Your task to perform on an android device: show emergency info Image 0: 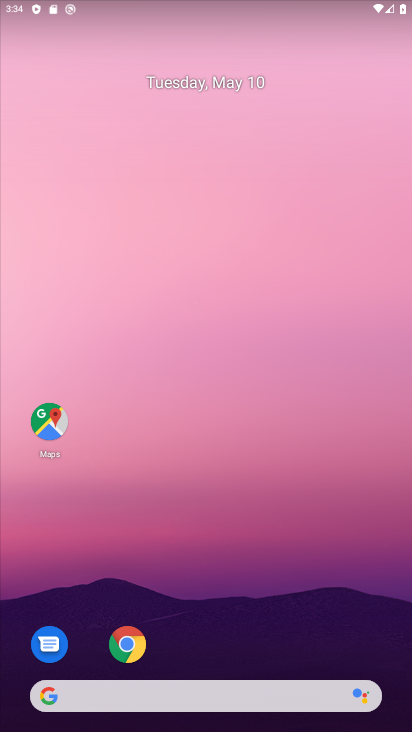
Step 0: drag from (205, 653) to (189, 236)
Your task to perform on an android device: show emergency info Image 1: 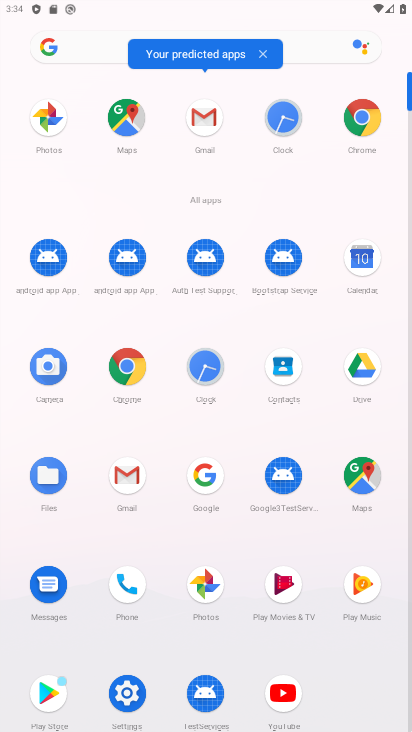
Step 1: click (124, 693)
Your task to perform on an android device: show emergency info Image 2: 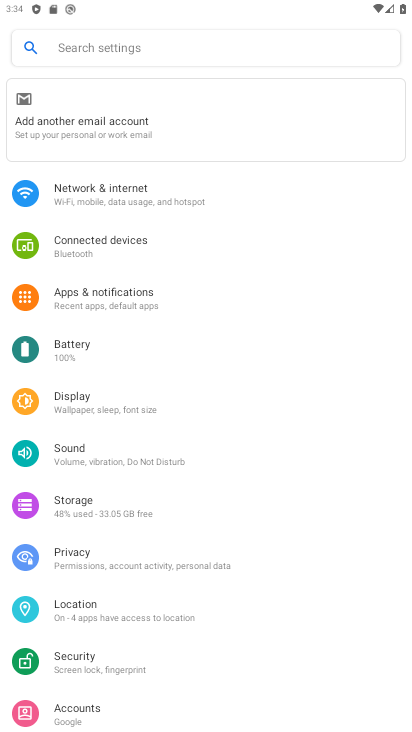
Step 2: drag from (153, 656) to (171, 350)
Your task to perform on an android device: show emergency info Image 3: 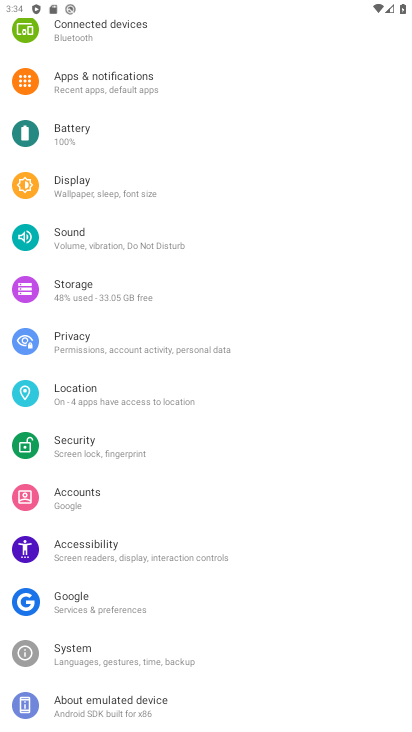
Step 3: click (151, 692)
Your task to perform on an android device: show emergency info Image 4: 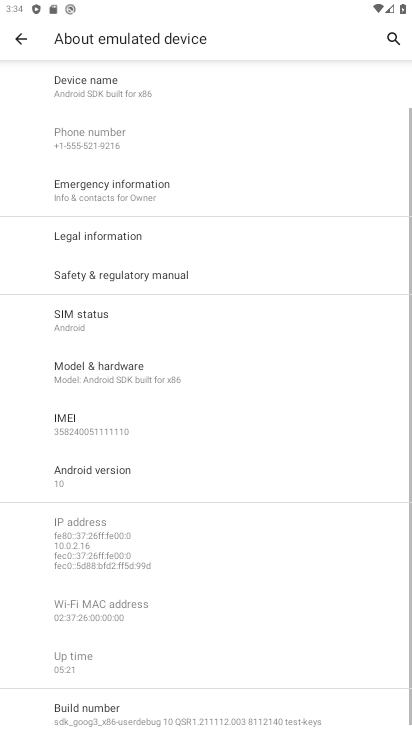
Step 4: click (131, 188)
Your task to perform on an android device: show emergency info Image 5: 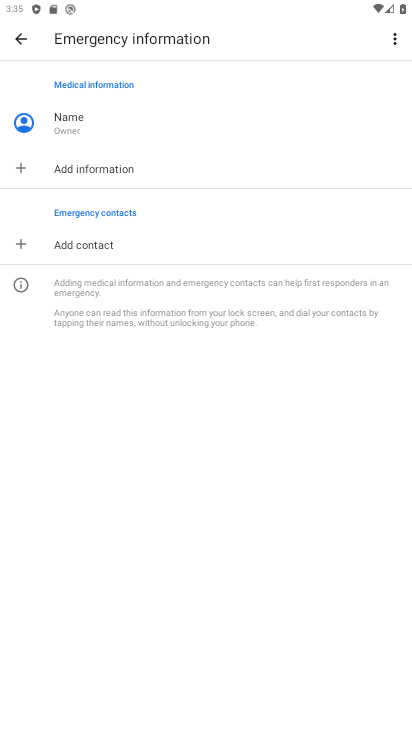
Step 5: task complete